Your task to perform on an android device: turn notification dots on Image 0: 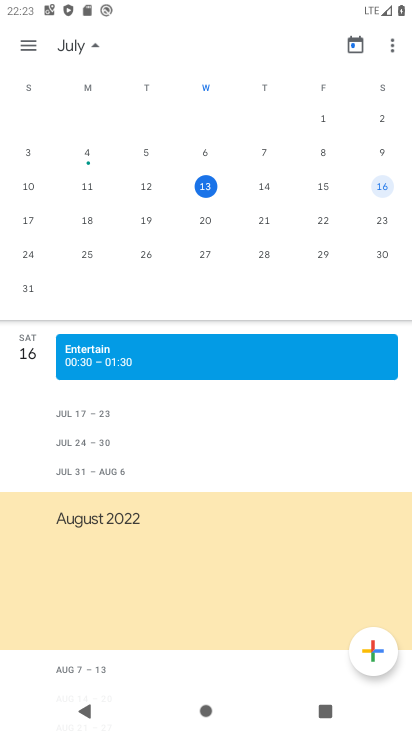
Step 0: press back button
Your task to perform on an android device: turn notification dots on Image 1: 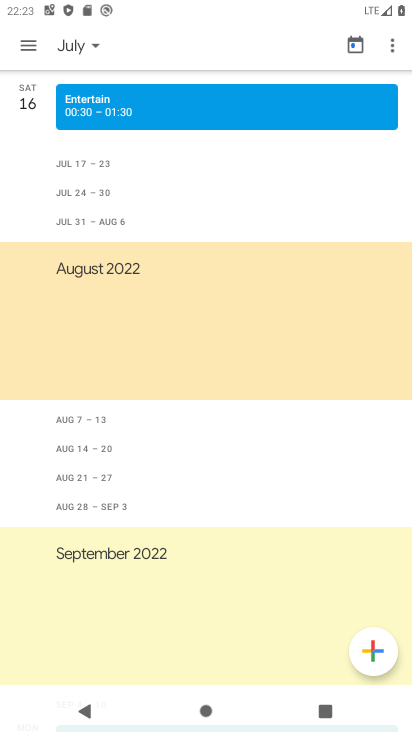
Step 1: press back button
Your task to perform on an android device: turn notification dots on Image 2: 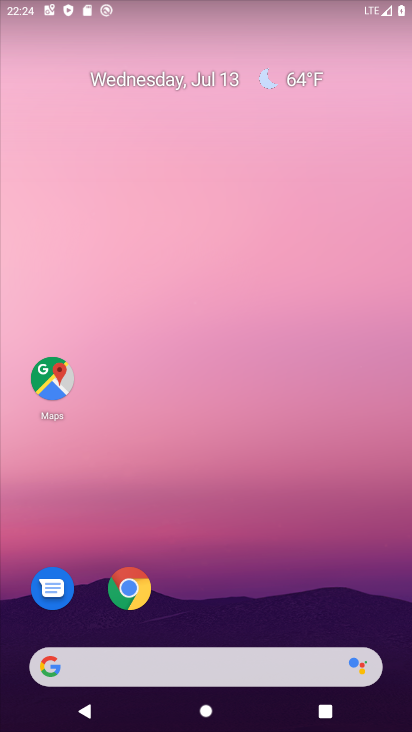
Step 2: drag from (259, 584) to (288, 26)
Your task to perform on an android device: turn notification dots on Image 3: 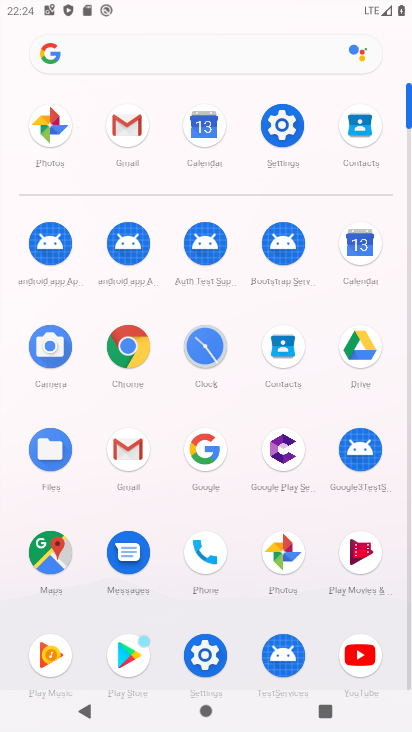
Step 3: click (284, 133)
Your task to perform on an android device: turn notification dots on Image 4: 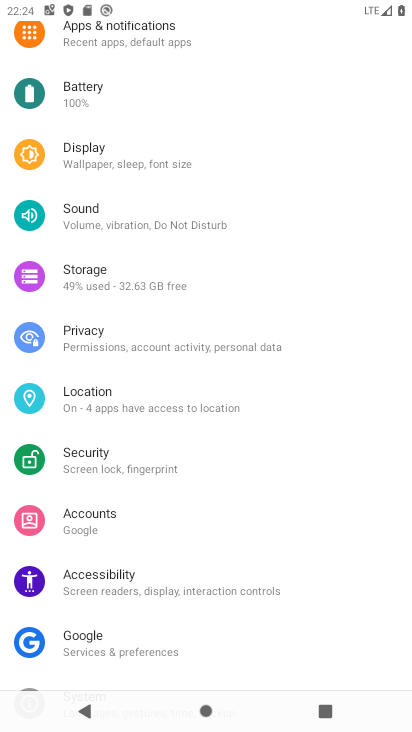
Step 4: drag from (271, 135) to (226, 453)
Your task to perform on an android device: turn notification dots on Image 5: 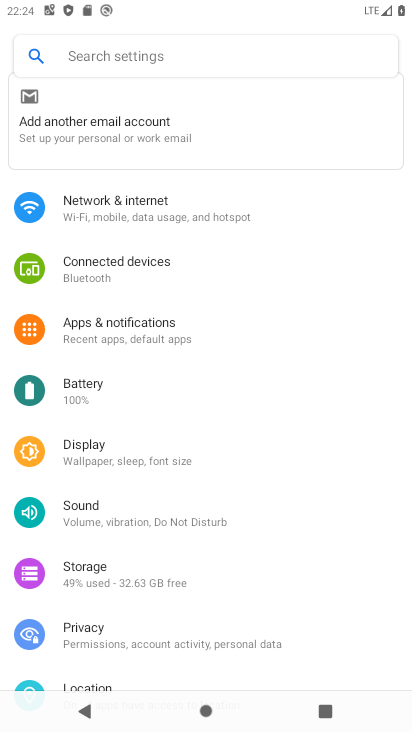
Step 5: click (131, 335)
Your task to perform on an android device: turn notification dots on Image 6: 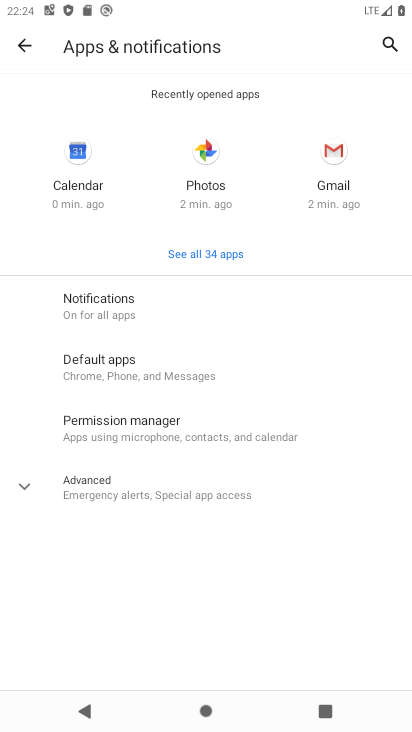
Step 6: click (135, 296)
Your task to perform on an android device: turn notification dots on Image 7: 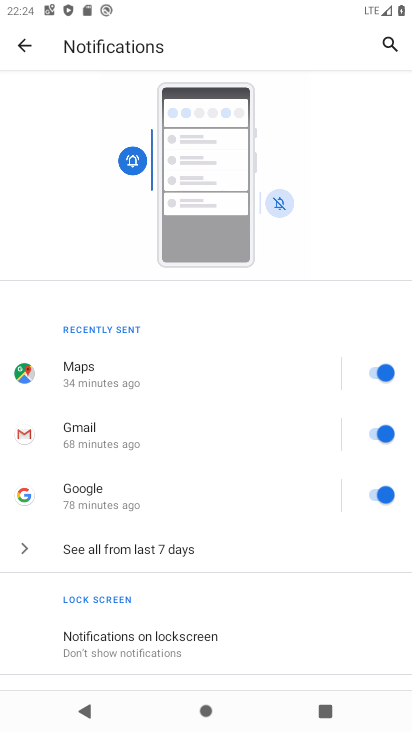
Step 7: drag from (147, 649) to (247, 224)
Your task to perform on an android device: turn notification dots on Image 8: 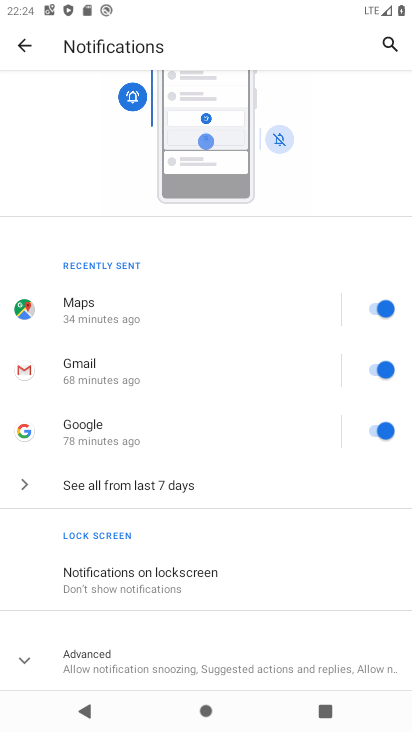
Step 8: click (134, 655)
Your task to perform on an android device: turn notification dots on Image 9: 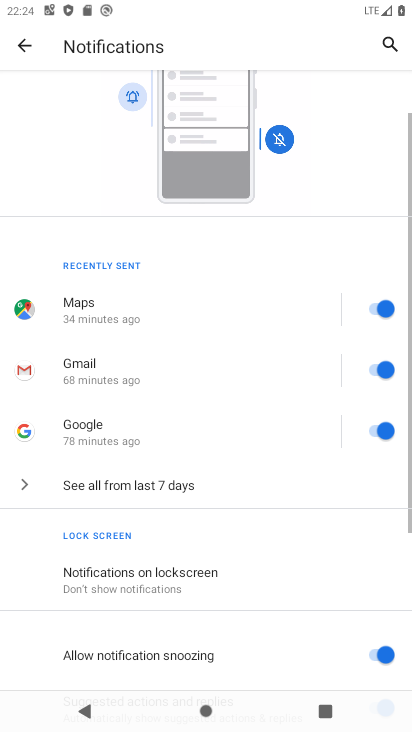
Step 9: task complete